Your task to perform on an android device: check the backup settings in the google photos Image 0: 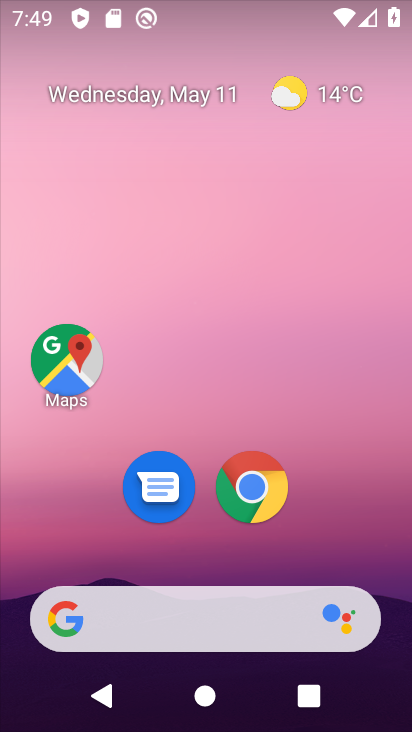
Step 0: drag from (231, 718) to (233, 114)
Your task to perform on an android device: check the backup settings in the google photos Image 1: 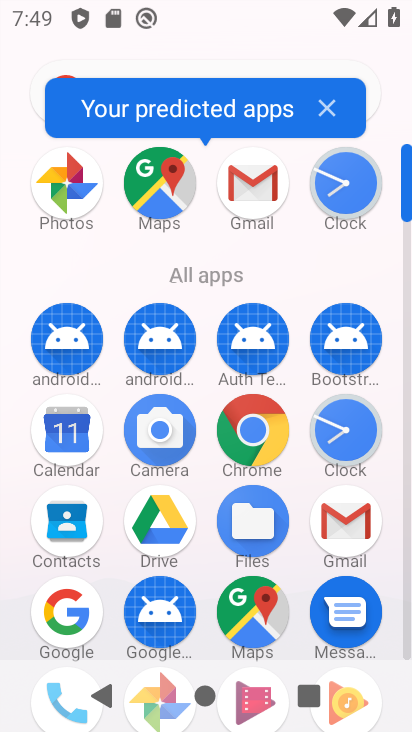
Step 1: click (66, 190)
Your task to perform on an android device: check the backup settings in the google photos Image 2: 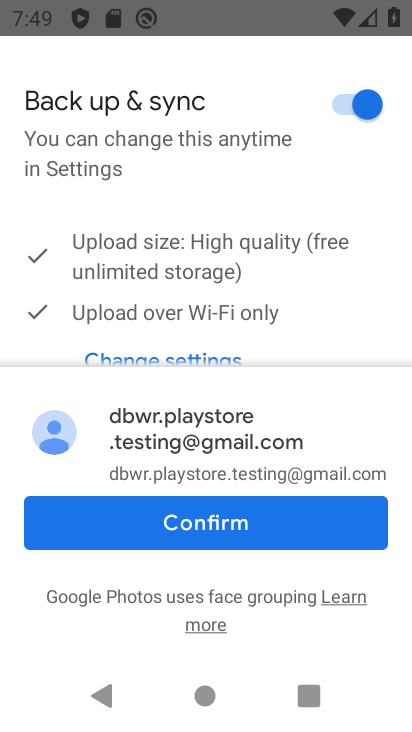
Step 2: click (198, 520)
Your task to perform on an android device: check the backup settings in the google photos Image 3: 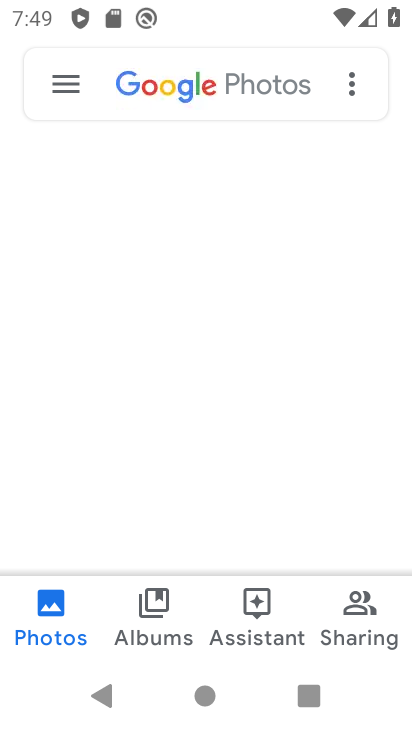
Step 3: click (44, 80)
Your task to perform on an android device: check the backup settings in the google photos Image 4: 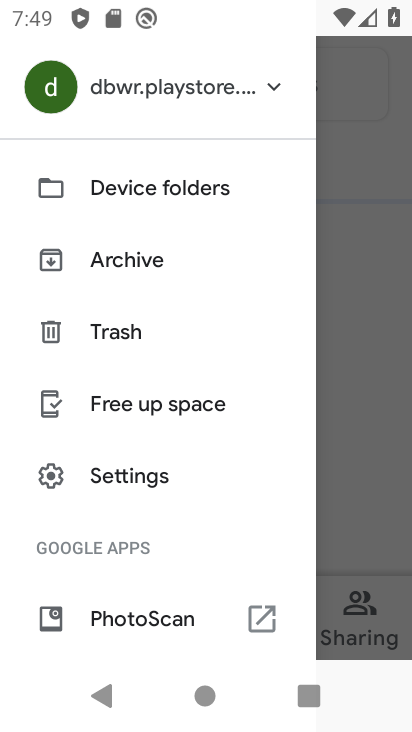
Step 4: click (125, 475)
Your task to perform on an android device: check the backup settings in the google photos Image 5: 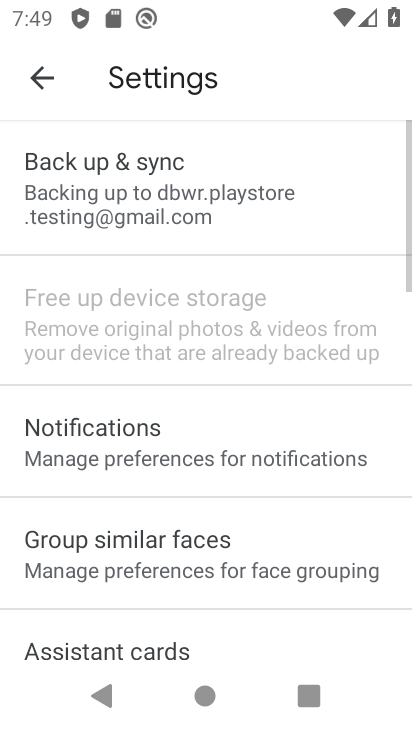
Step 5: click (127, 184)
Your task to perform on an android device: check the backup settings in the google photos Image 6: 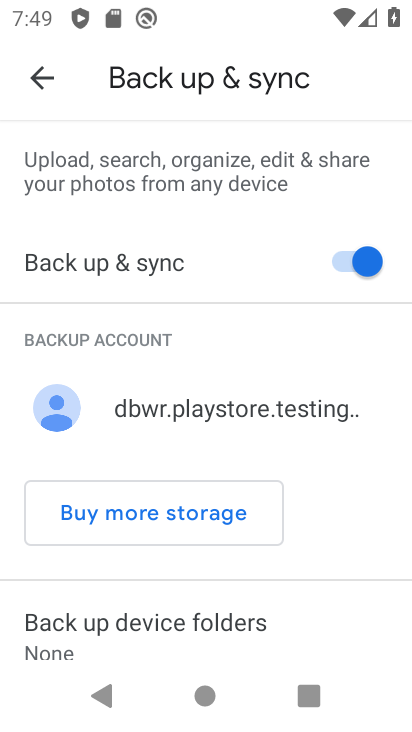
Step 6: task complete